Your task to perform on an android device: toggle data saver in the chrome app Image 0: 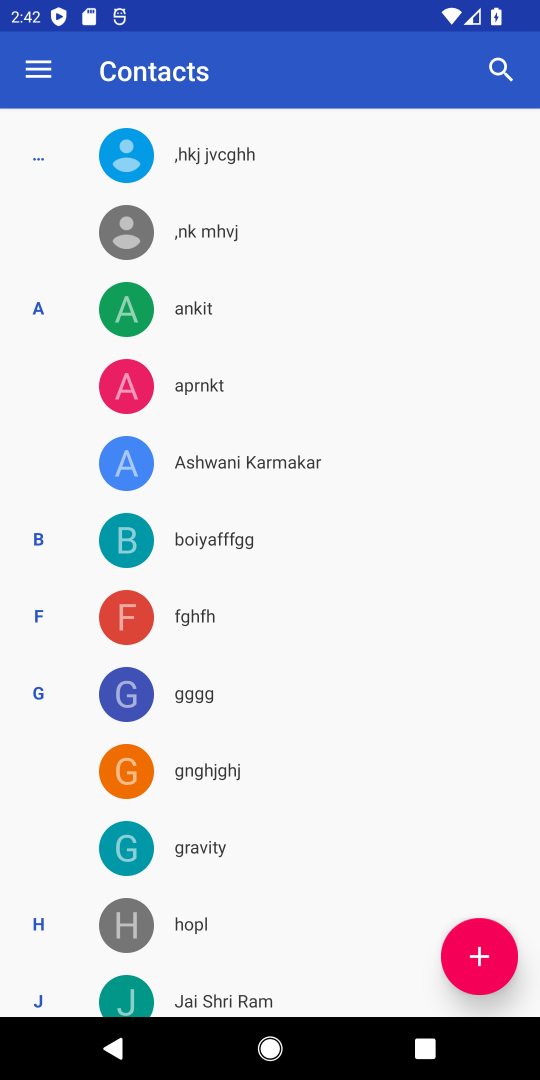
Step 0: press home button
Your task to perform on an android device: toggle data saver in the chrome app Image 1: 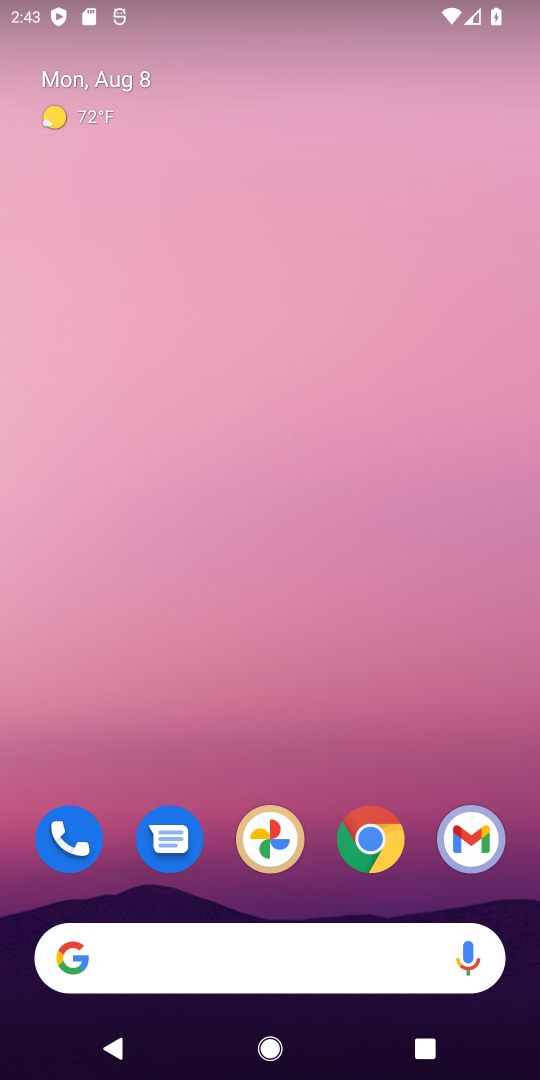
Step 1: drag from (314, 792) to (345, 151)
Your task to perform on an android device: toggle data saver in the chrome app Image 2: 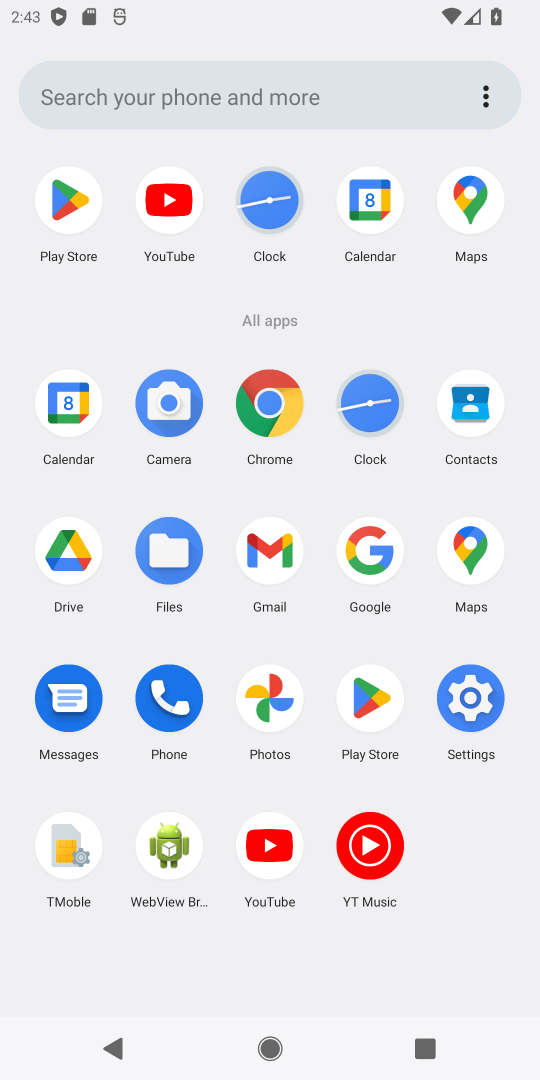
Step 2: click (271, 415)
Your task to perform on an android device: toggle data saver in the chrome app Image 3: 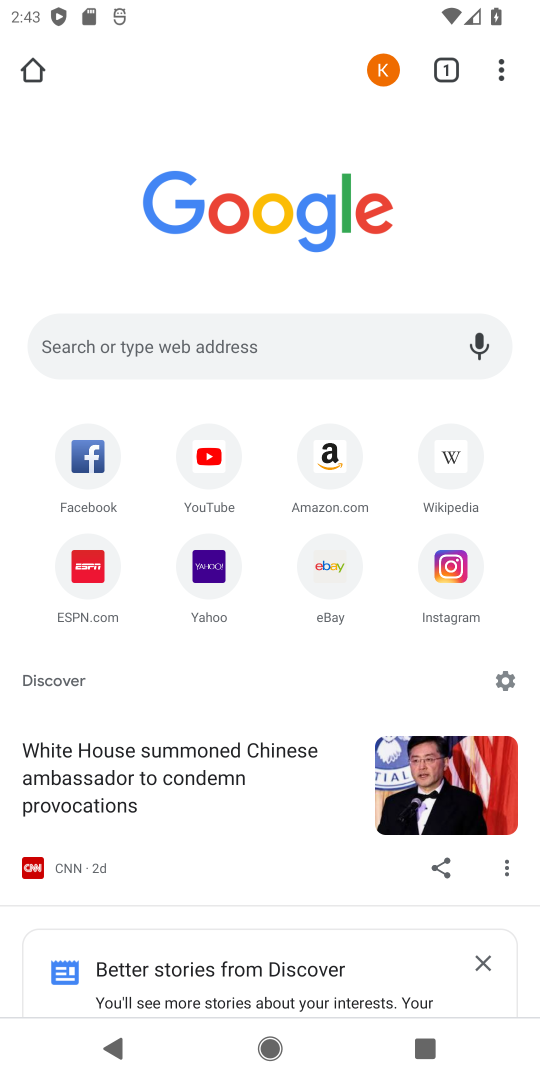
Step 3: click (502, 71)
Your task to perform on an android device: toggle data saver in the chrome app Image 4: 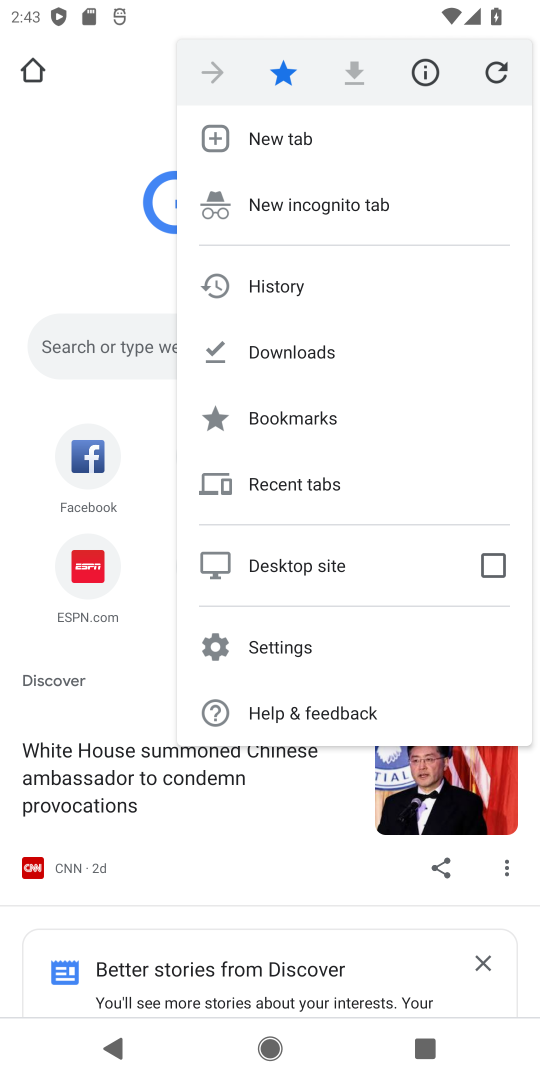
Step 4: click (317, 644)
Your task to perform on an android device: toggle data saver in the chrome app Image 5: 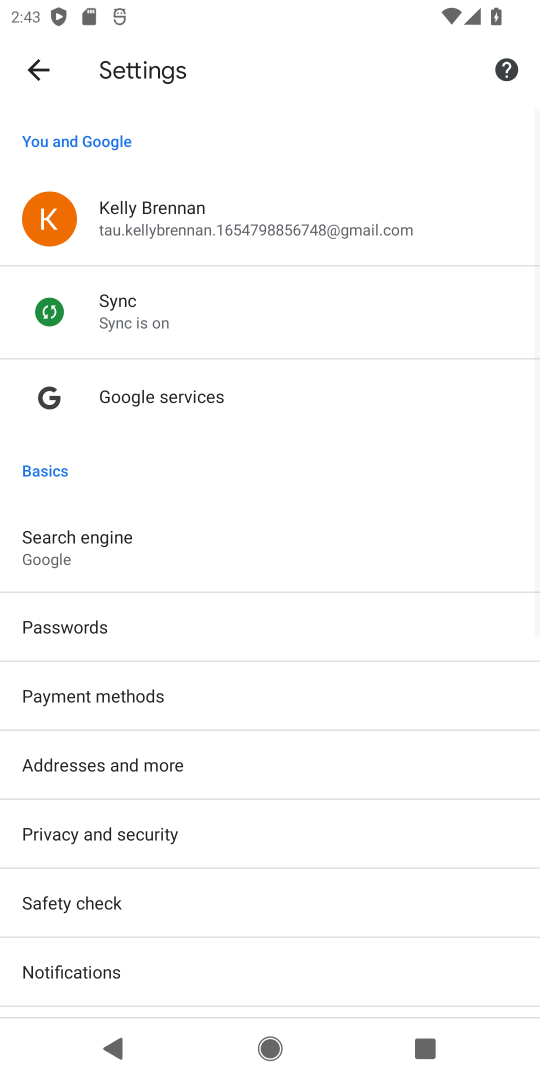
Step 5: drag from (416, 699) to (444, 327)
Your task to perform on an android device: toggle data saver in the chrome app Image 6: 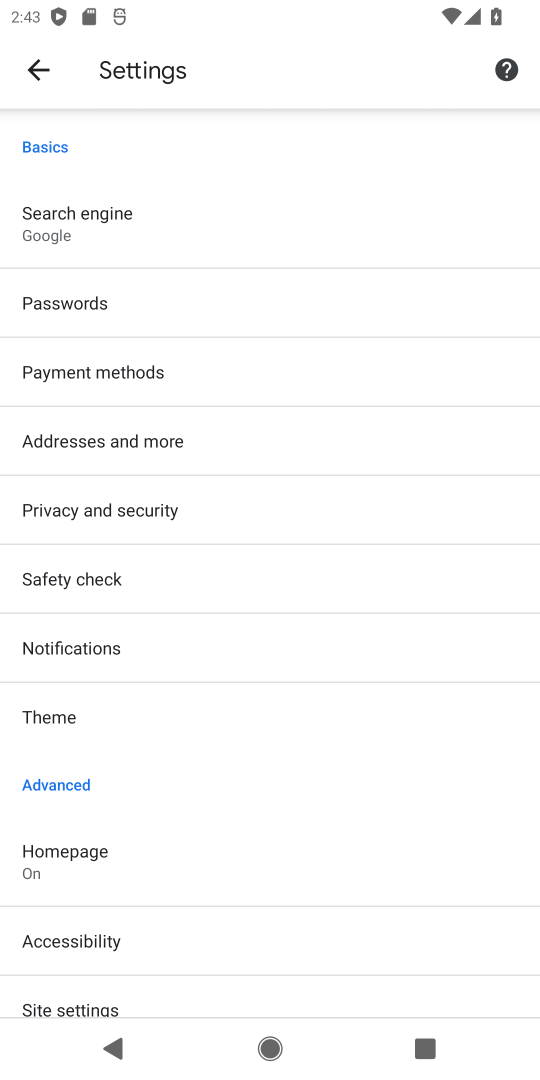
Step 6: drag from (435, 643) to (447, 374)
Your task to perform on an android device: toggle data saver in the chrome app Image 7: 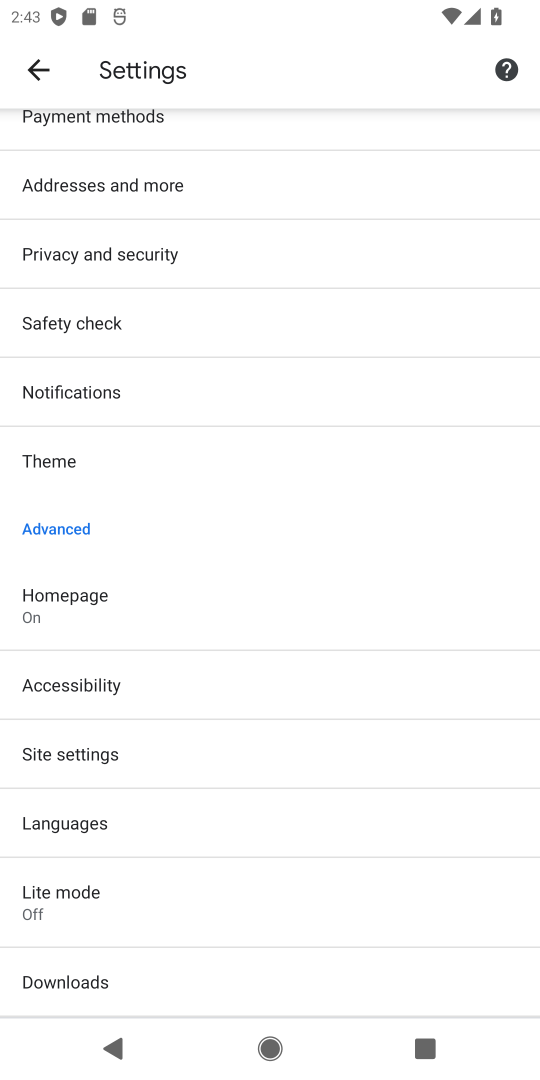
Step 7: drag from (435, 625) to (439, 363)
Your task to perform on an android device: toggle data saver in the chrome app Image 8: 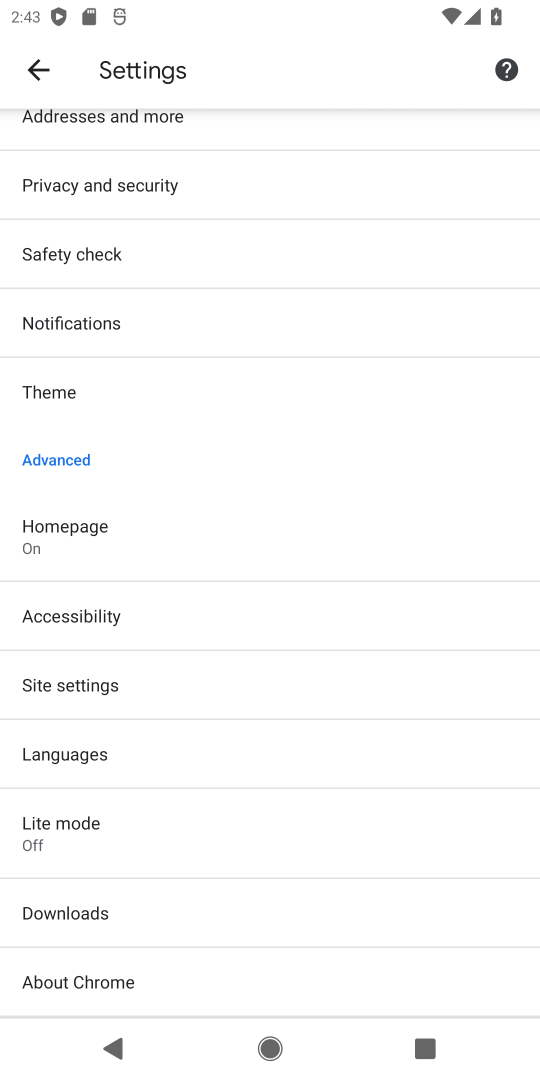
Step 8: drag from (387, 660) to (386, 401)
Your task to perform on an android device: toggle data saver in the chrome app Image 9: 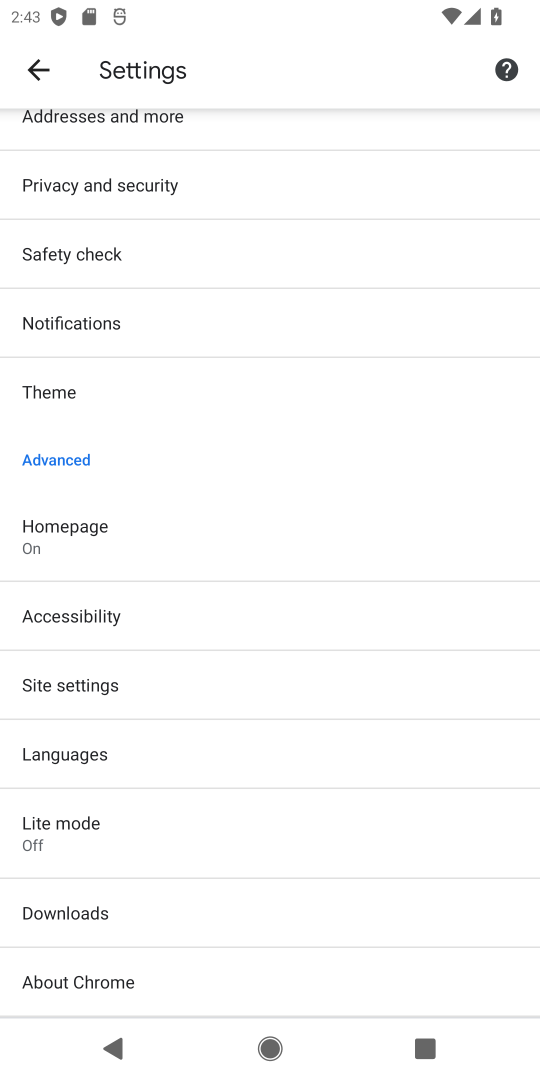
Step 9: click (345, 674)
Your task to perform on an android device: toggle data saver in the chrome app Image 10: 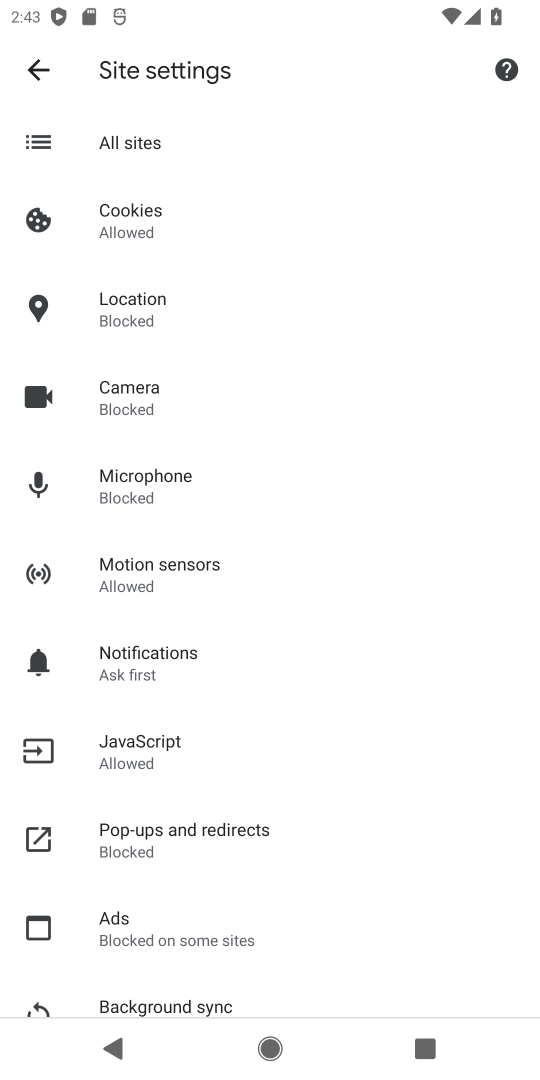
Step 10: drag from (385, 780) to (388, 574)
Your task to perform on an android device: toggle data saver in the chrome app Image 11: 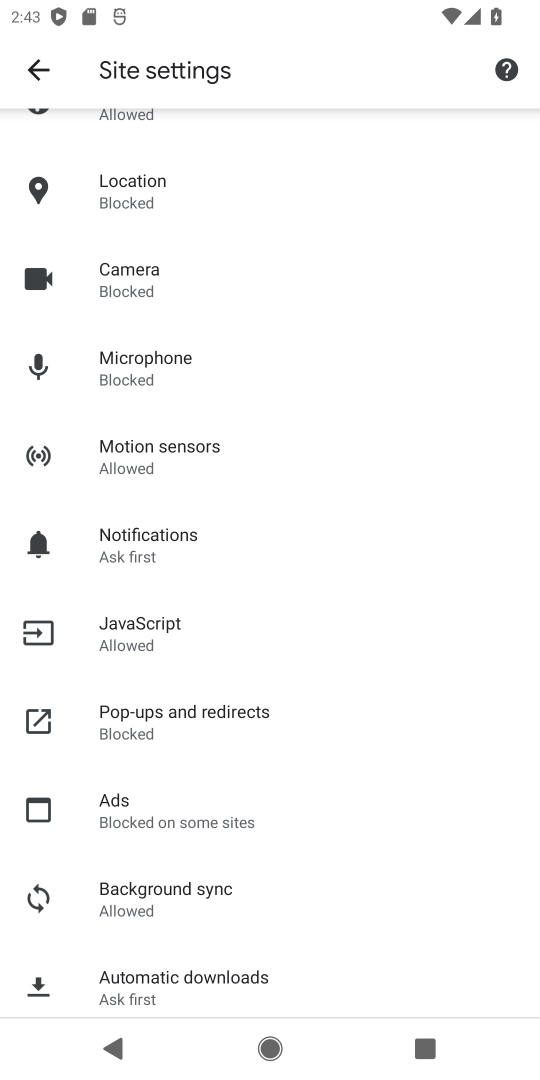
Step 11: drag from (412, 735) to (423, 529)
Your task to perform on an android device: toggle data saver in the chrome app Image 12: 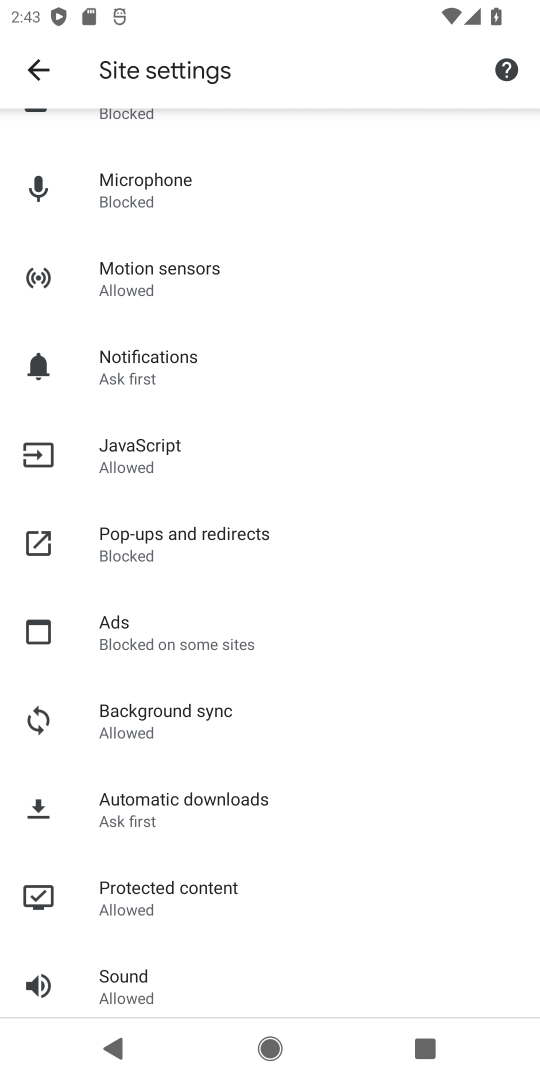
Step 12: drag from (440, 735) to (442, 499)
Your task to perform on an android device: toggle data saver in the chrome app Image 13: 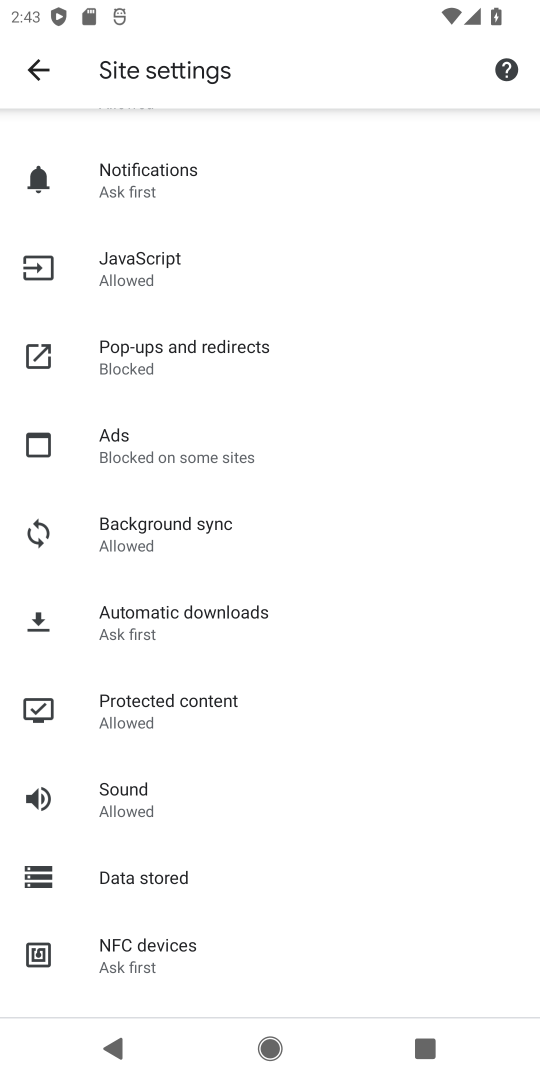
Step 13: drag from (409, 760) to (435, 488)
Your task to perform on an android device: toggle data saver in the chrome app Image 14: 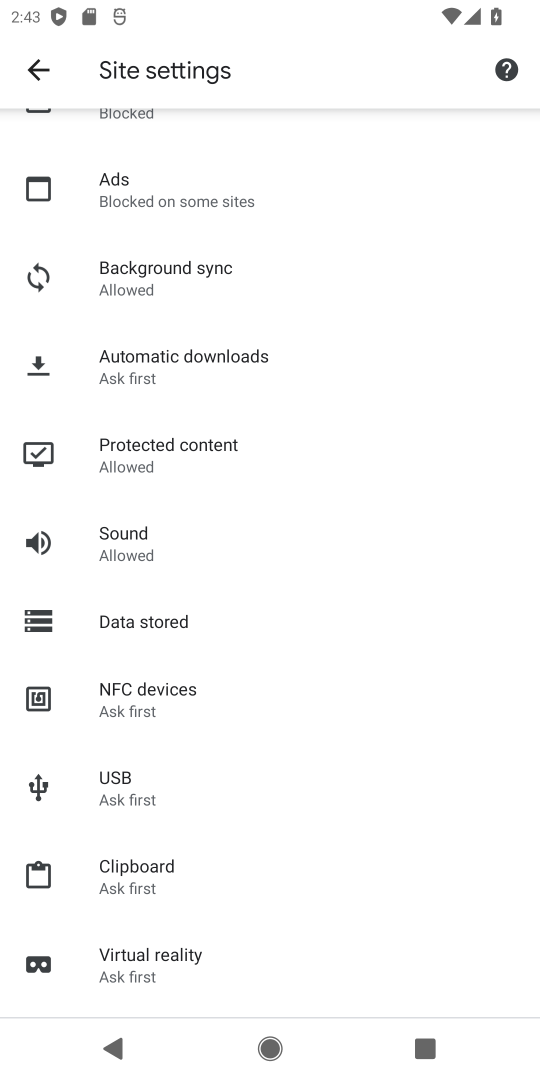
Step 14: drag from (407, 701) to (416, 410)
Your task to perform on an android device: toggle data saver in the chrome app Image 15: 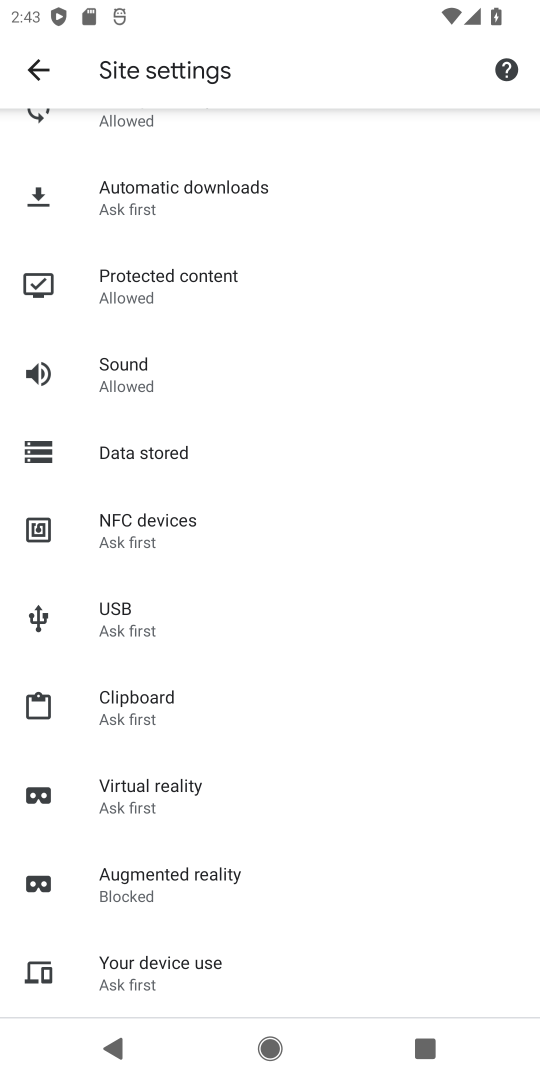
Step 15: drag from (406, 832) to (403, 491)
Your task to perform on an android device: toggle data saver in the chrome app Image 16: 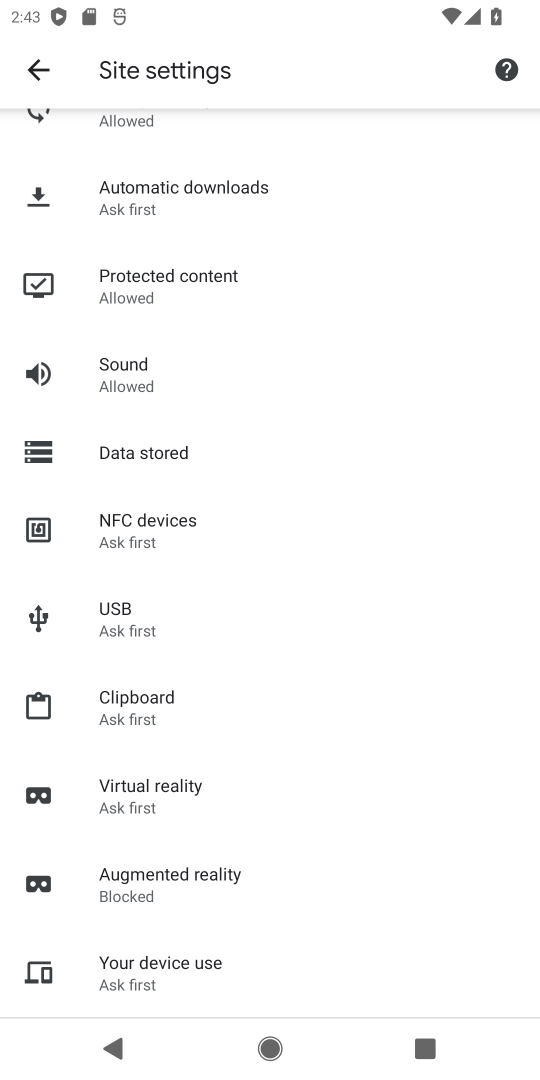
Step 16: drag from (409, 376) to (418, 565)
Your task to perform on an android device: toggle data saver in the chrome app Image 17: 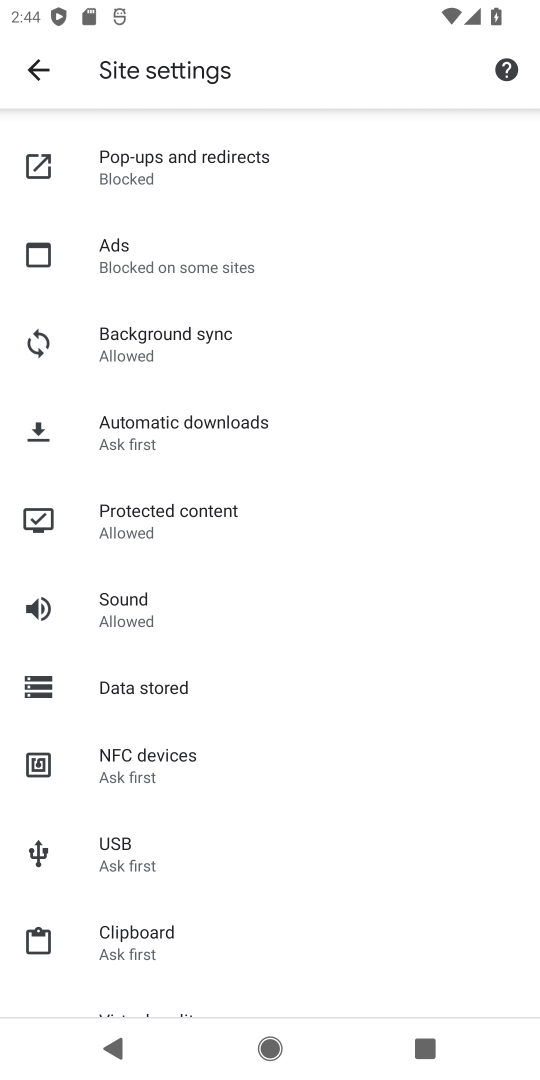
Step 17: drag from (409, 272) to (408, 603)
Your task to perform on an android device: toggle data saver in the chrome app Image 18: 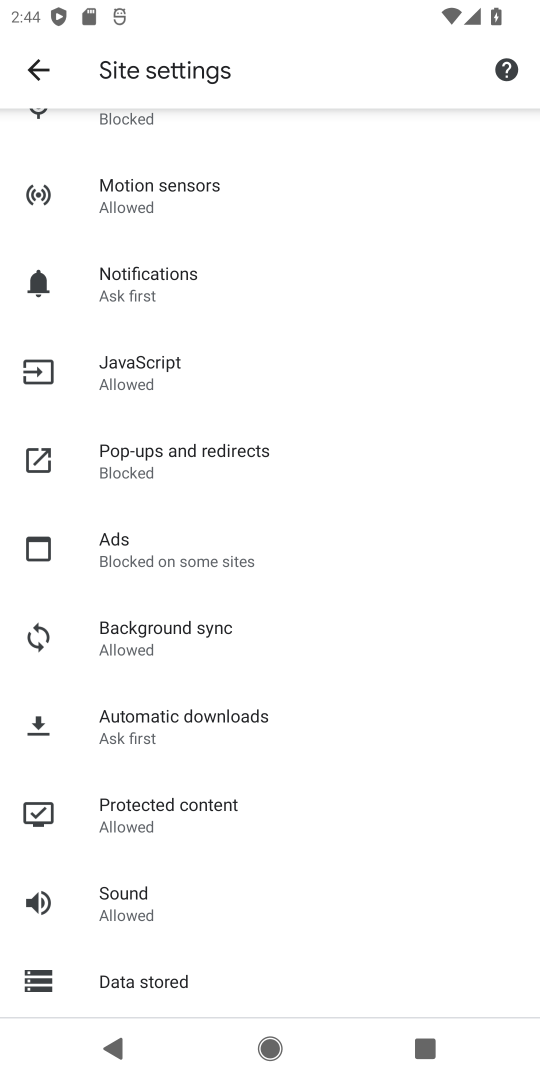
Step 18: click (260, 473)
Your task to perform on an android device: toggle data saver in the chrome app Image 19: 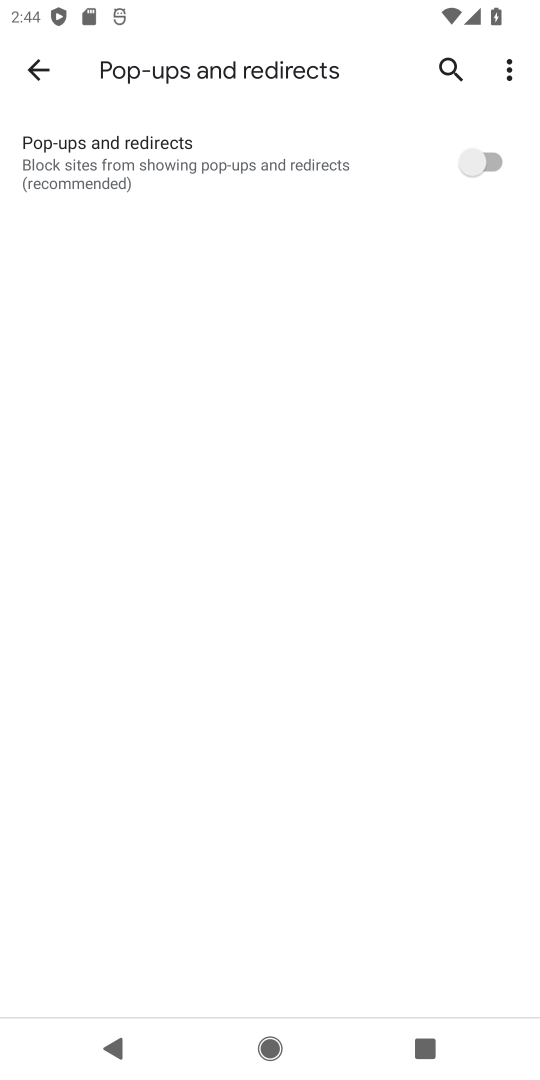
Step 19: click (475, 174)
Your task to perform on an android device: toggle data saver in the chrome app Image 20: 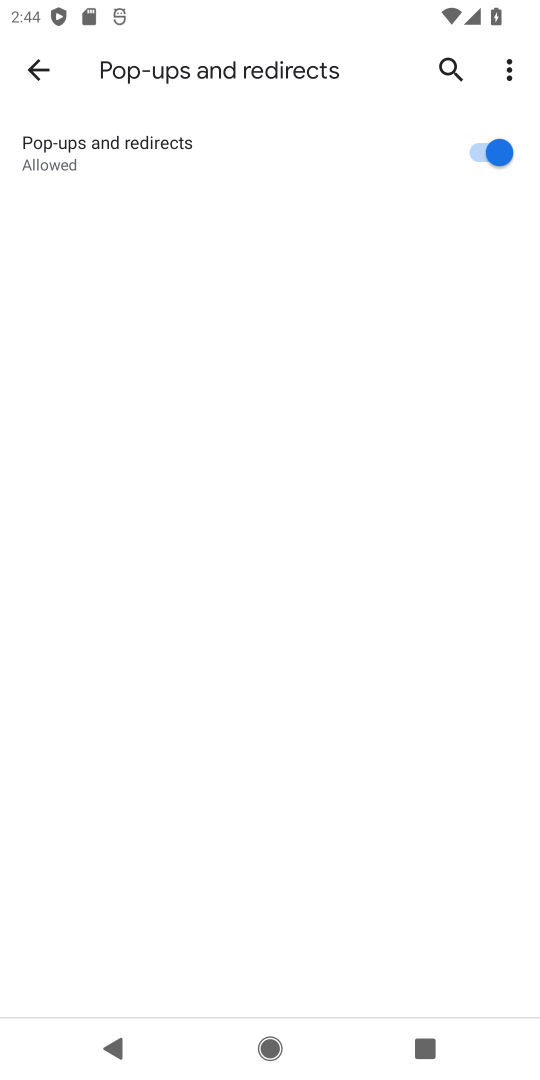
Step 20: task complete